Your task to perform on an android device: Is it going to rain this weekend? Image 0: 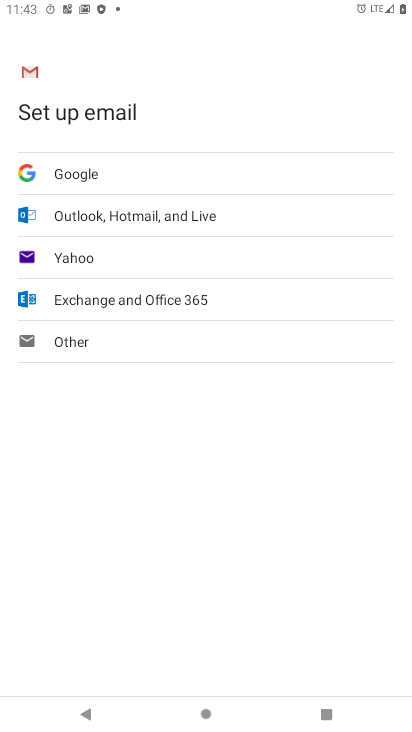
Step 0: press home button
Your task to perform on an android device: Is it going to rain this weekend? Image 1: 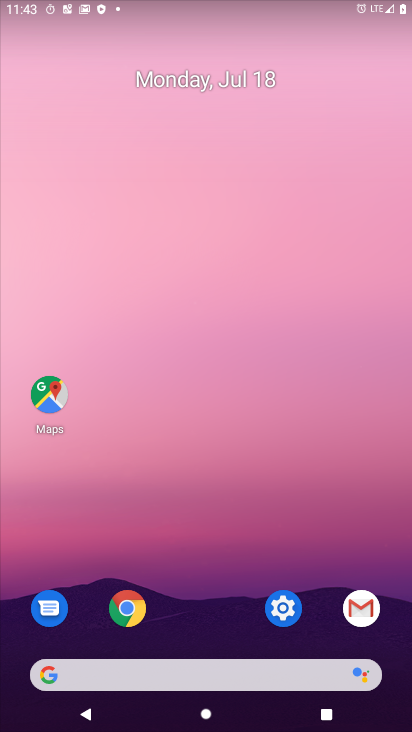
Step 1: drag from (230, 704) to (265, 200)
Your task to perform on an android device: Is it going to rain this weekend? Image 2: 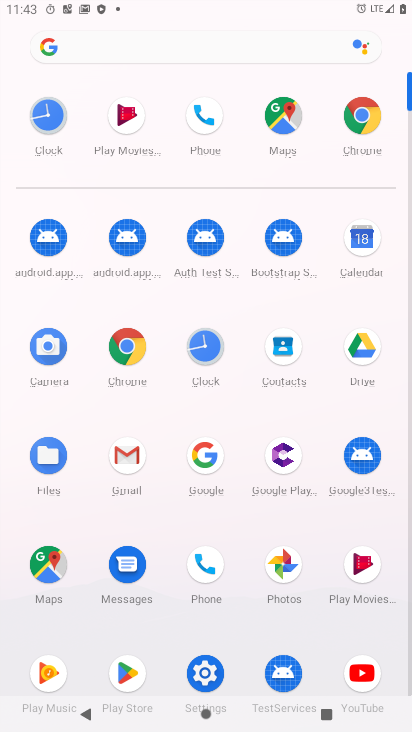
Step 2: click (113, 47)
Your task to perform on an android device: Is it going to rain this weekend? Image 3: 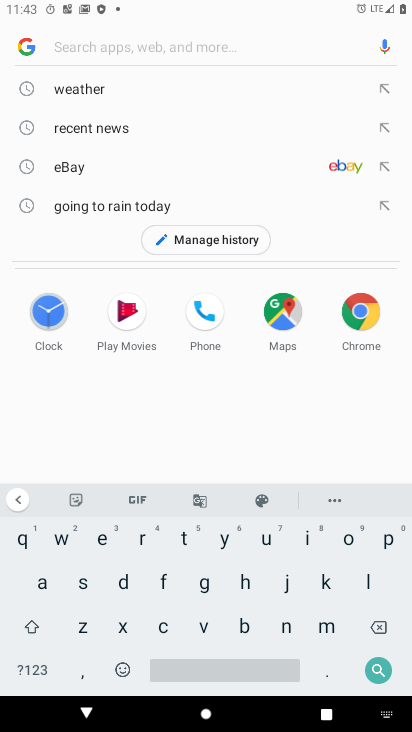
Step 3: click (141, 536)
Your task to perform on an android device: Is it going to rain this weekend? Image 4: 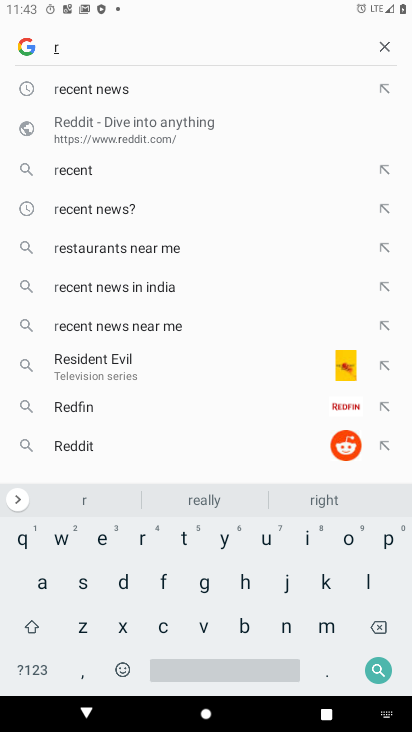
Step 4: click (42, 581)
Your task to perform on an android device: Is it going to rain this weekend? Image 5: 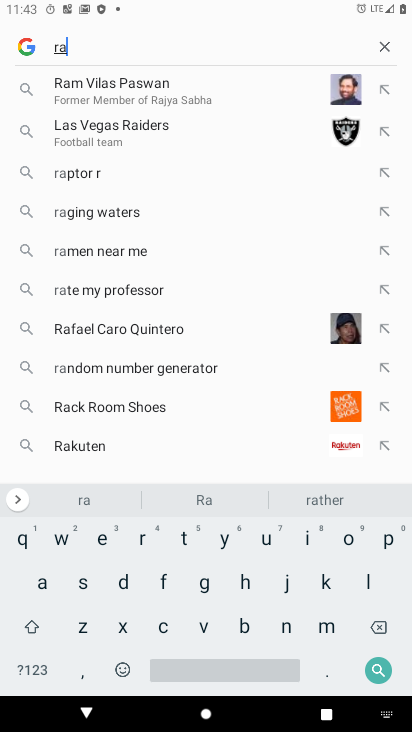
Step 5: click (301, 534)
Your task to perform on an android device: Is it going to rain this weekend? Image 6: 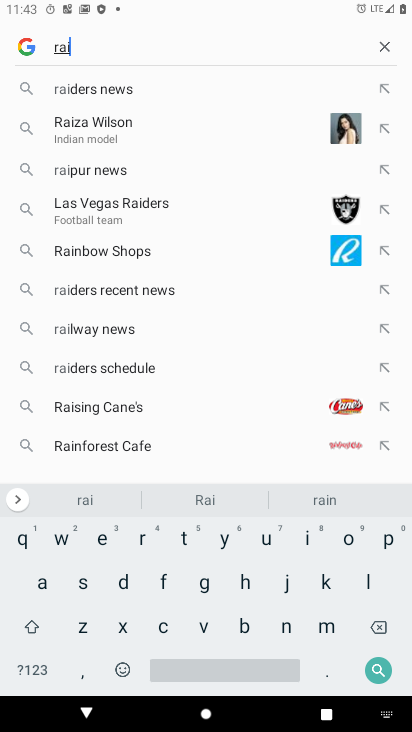
Step 6: click (284, 622)
Your task to perform on an android device: Is it going to rain this weekend? Image 7: 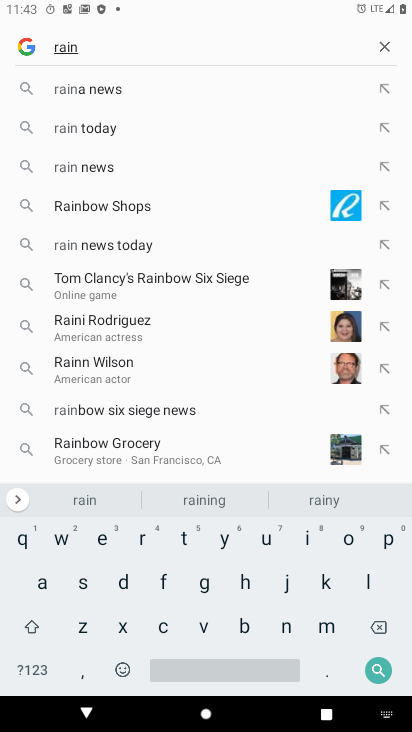
Step 7: click (178, 660)
Your task to perform on an android device: Is it going to rain this weekend? Image 8: 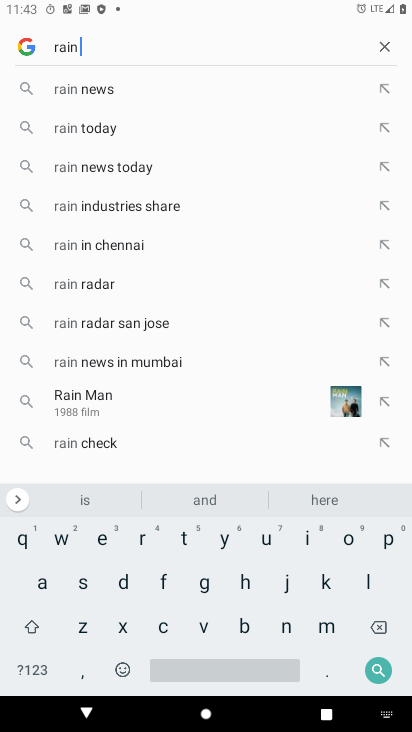
Step 8: click (178, 535)
Your task to perform on an android device: Is it going to rain this weekend? Image 9: 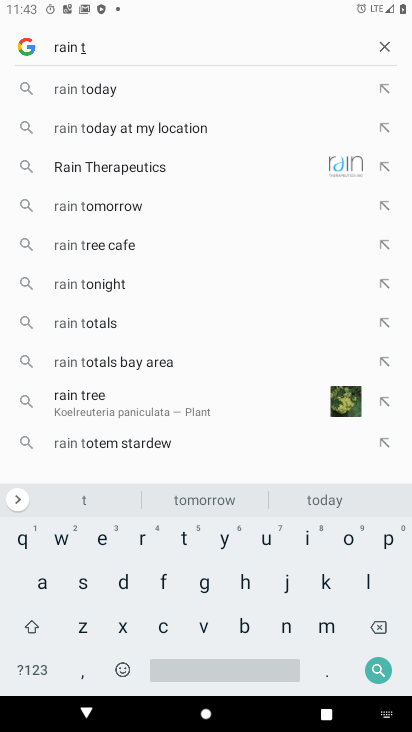
Step 9: click (241, 585)
Your task to perform on an android device: Is it going to rain this weekend? Image 10: 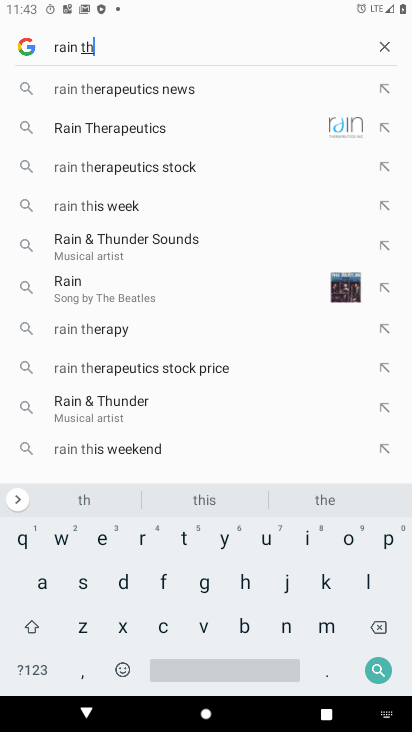
Step 10: click (303, 540)
Your task to perform on an android device: Is it going to rain this weekend? Image 11: 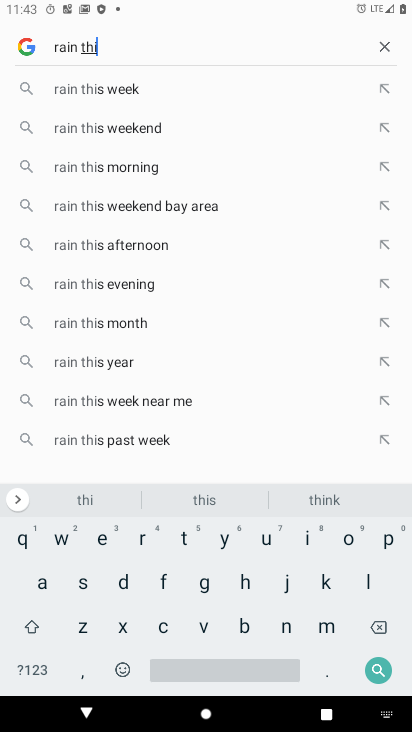
Step 11: click (85, 129)
Your task to perform on an android device: Is it going to rain this weekend? Image 12: 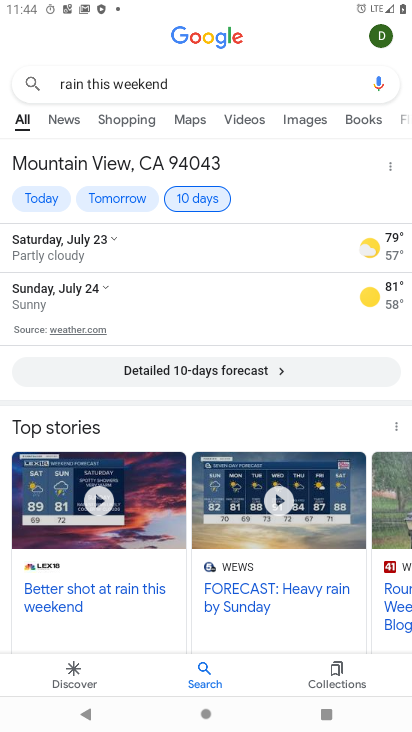
Step 12: task complete